Your task to perform on an android device: open app "DoorDash - Dasher" (install if not already installed) Image 0: 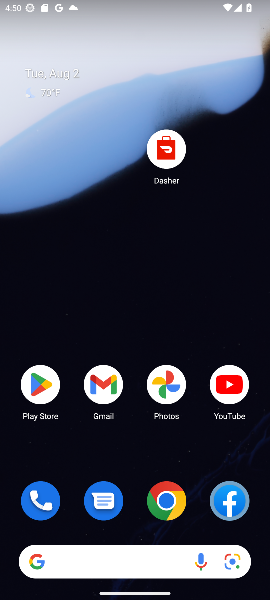
Step 0: click (37, 398)
Your task to perform on an android device: open app "DoorDash - Dasher" (install if not already installed) Image 1: 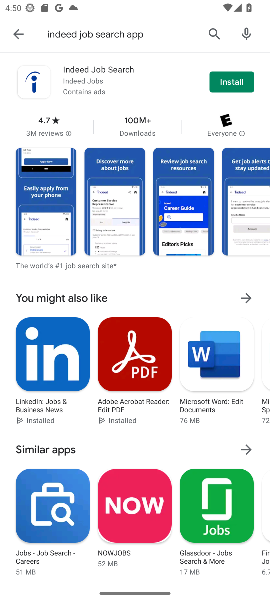
Step 1: click (200, 36)
Your task to perform on an android device: open app "DoorDash - Dasher" (install if not already installed) Image 2: 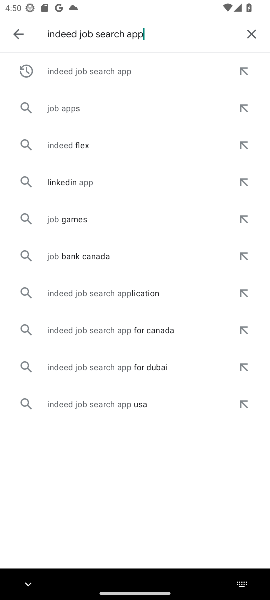
Step 2: click (249, 31)
Your task to perform on an android device: open app "DoorDash - Dasher" (install if not already installed) Image 3: 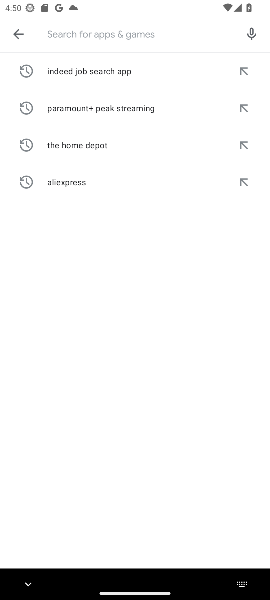
Step 3: type "DoorDash - Dasher"
Your task to perform on an android device: open app "DoorDash - Dasher" (install if not already installed) Image 4: 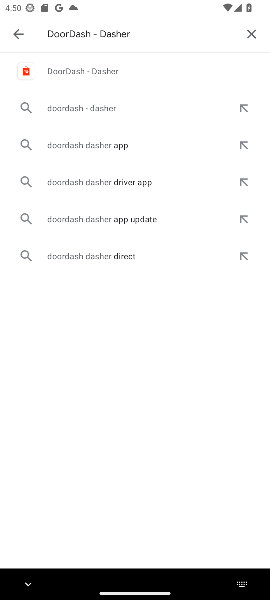
Step 4: click (88, 76)
Your task to perform on an android device: open app "DoorDash - Dasher" (install if not already installed) Image 5: 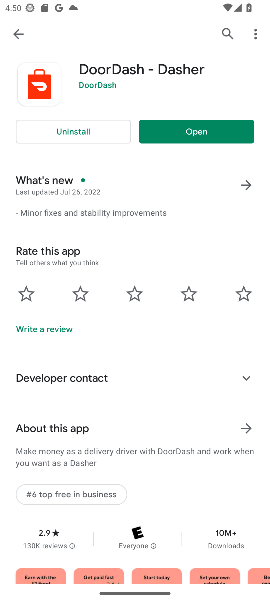
Step 5: click (187, 131)
Your task to perform on an android device: open app "DoorDash - Dasher" (install if not already installed) Image 6: 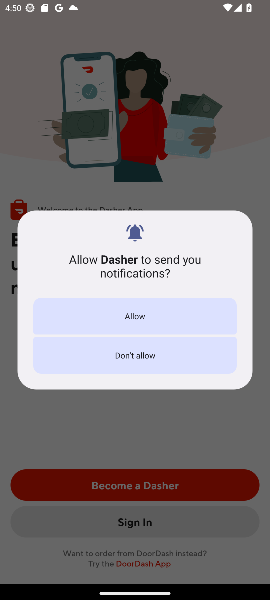
Step 6: task complete